Your task to perform on an android device: Search for vegetarian restaurants on Maps Image 0: 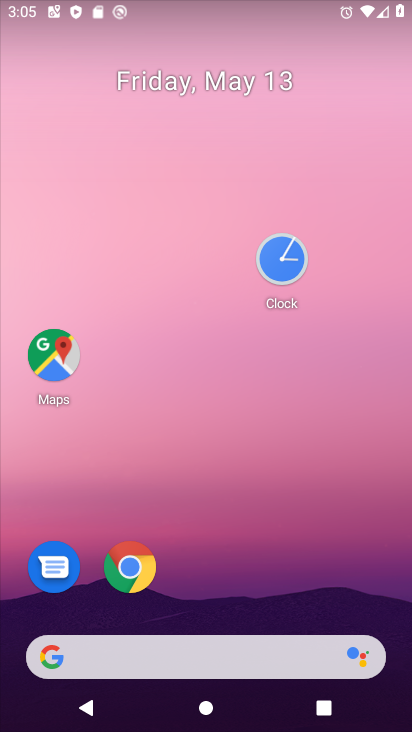
Step 0: click (60, 376)
Your task to perform on an android device: Search for vegetarian restaurants on Maps Image 1: 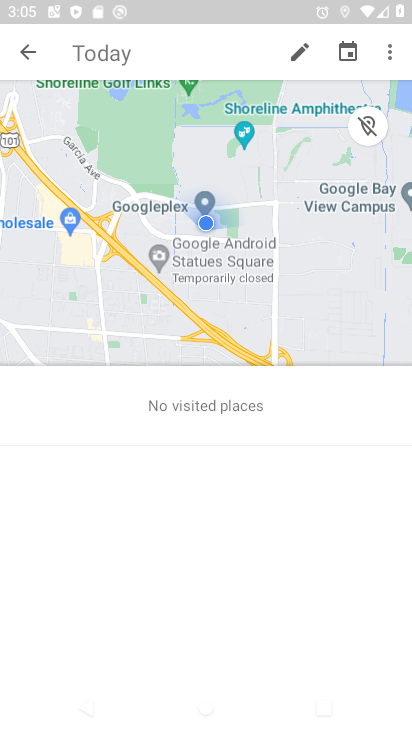
Step 1: click (193, 60)
Your task to perform on an android device: Search for vegetarian restaurants on Maps Image 2: 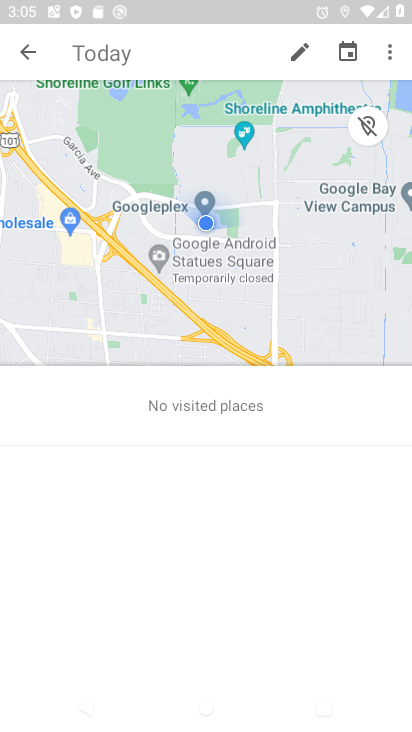
Step 2: click (23, 44)
Your task to perform on an android device: Search for vegetarian restaurants on Maps Image 3: 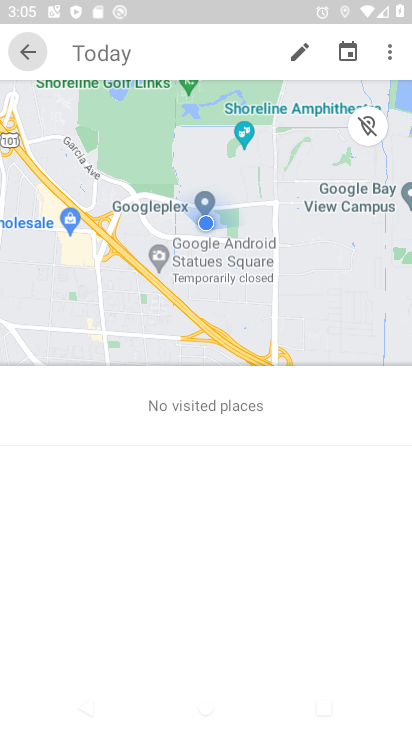
Step 3: click (23, 44)
Your task to perform on an android device: Search for vegetarian restaurants on Maps Image 4: 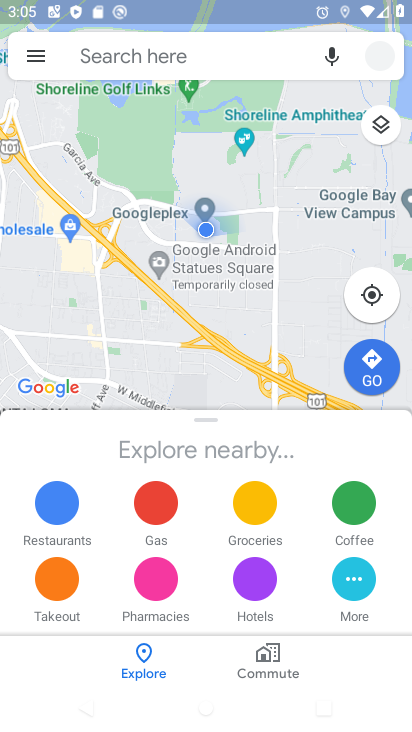
Step 4: click (139, 70)
Your task to perform on an android device: Search for vegetarian restaurants on Maps Image 5: 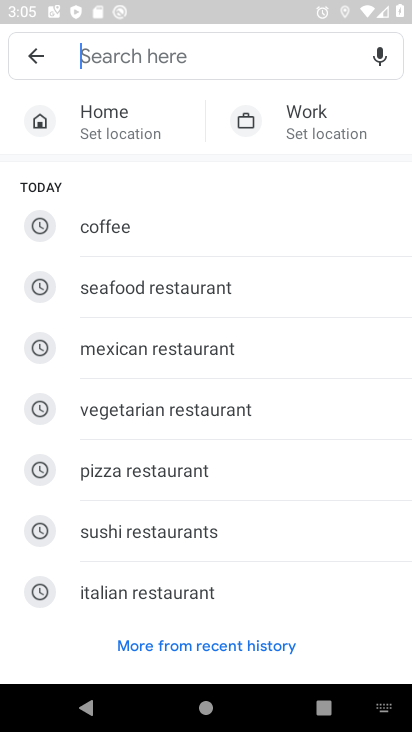
Step 5: click (209, 405)
Your task to perform on an android device: Search for vegetarian restaurants on Maps Image 6: 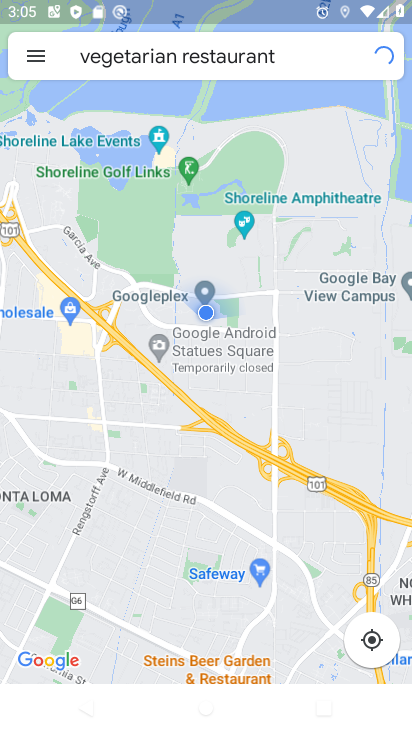
Step 6: task complete